Your task to perform on an android device: turn pop-ups off in chrome Image 0: 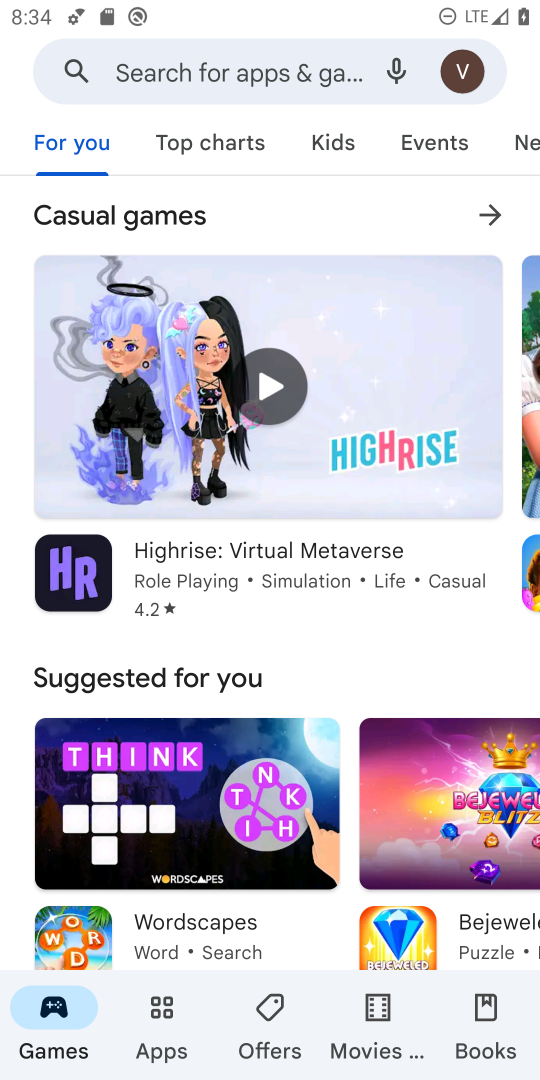
Step 0: press home button
Your task to perform on an android device: turn pop-ups off in chrome Image 1: 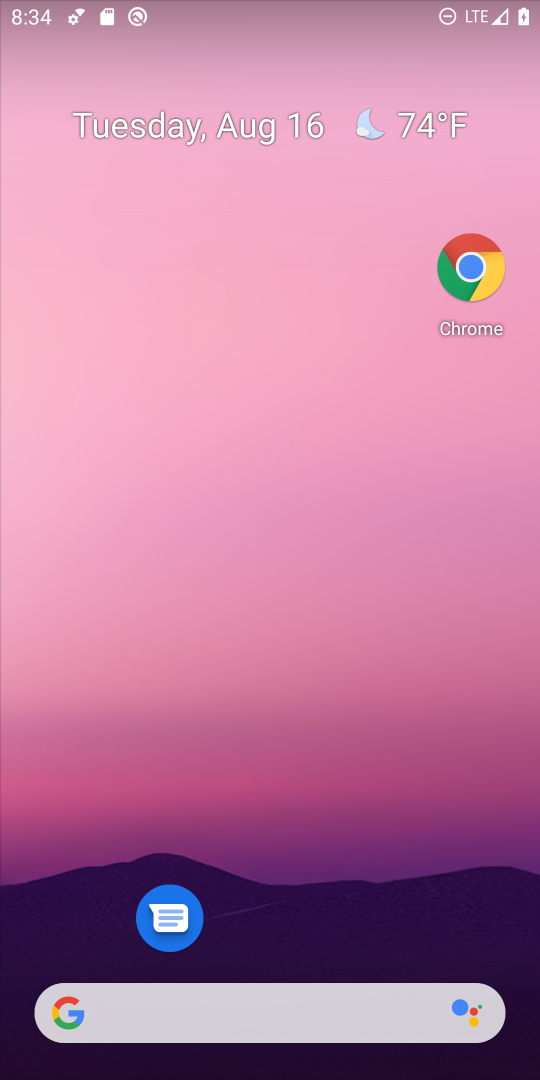
Step 1: drag from (480, 1052) to (389, 444)
Your task to perform on an android device: turn pop-ups off in chrome Image 2: 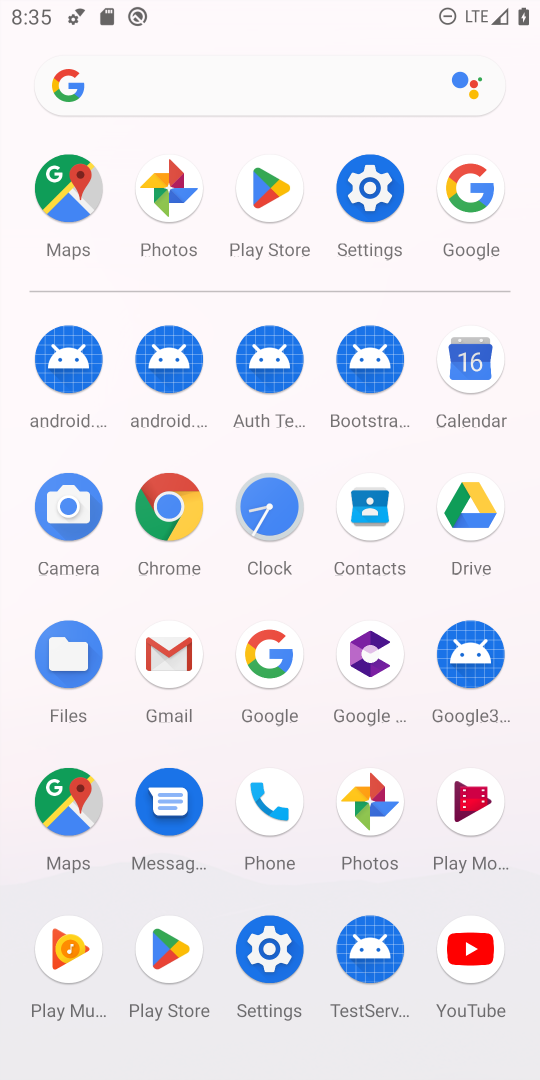
Step 2: click (180, 515)
Your task to perform on an android device: turn pop-ups off in chrome Image 3: 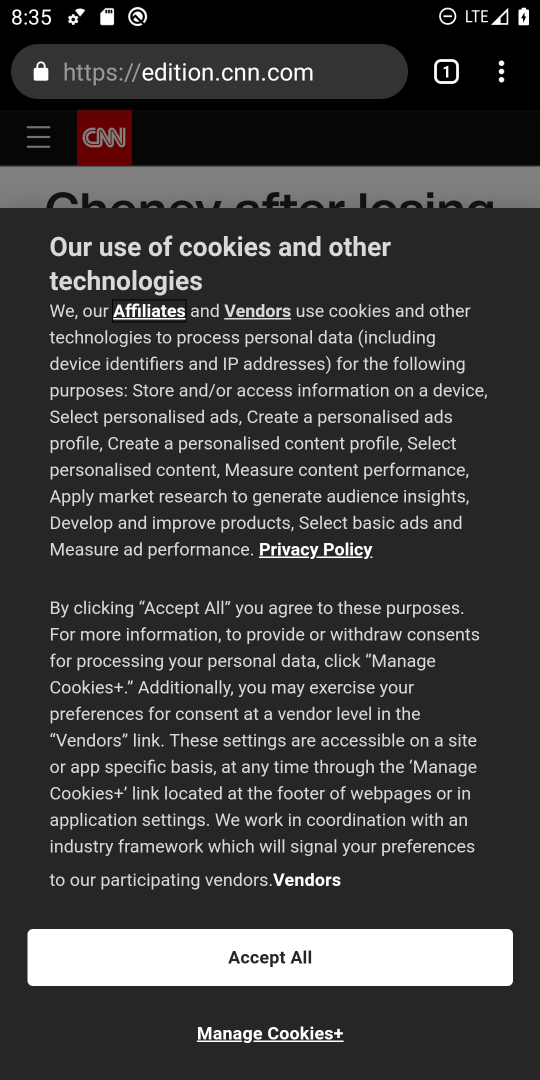
Step 3: click (508, 68)
Your task to perform on an android device: turn pop-ups off in chrome Image 4: 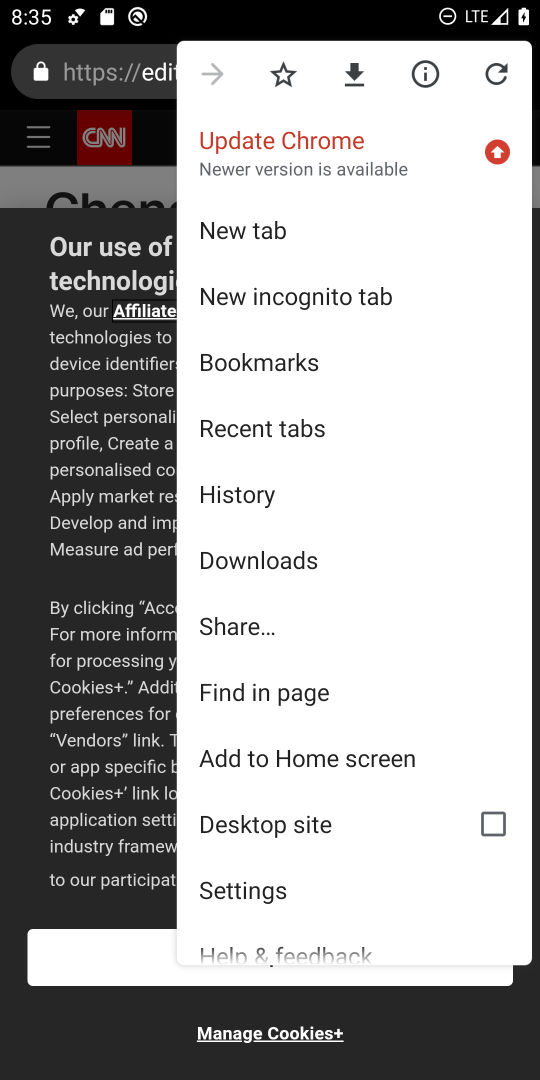
Step 4: click (229, 895)
Your task to perform on an android device: turn pop-ups off in chrome Image 5: 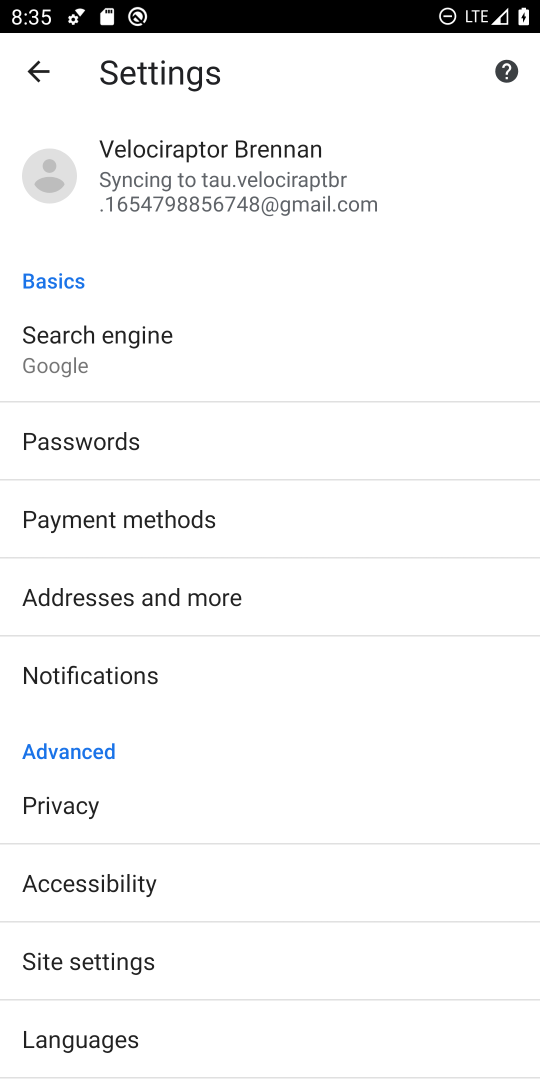
Step 5: click (117, 968)
Your task to perform on an android device: turn pop-ups off in chrome Image 6: 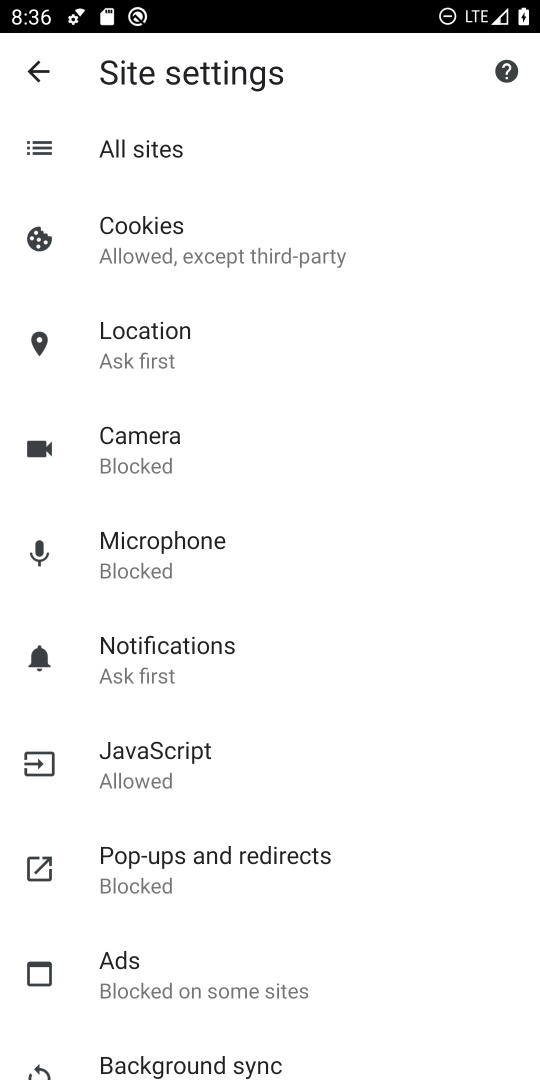
Step 6: click (170, 864)
Your task to perform on an android device: turn pop-ups off in chrome Image 7: 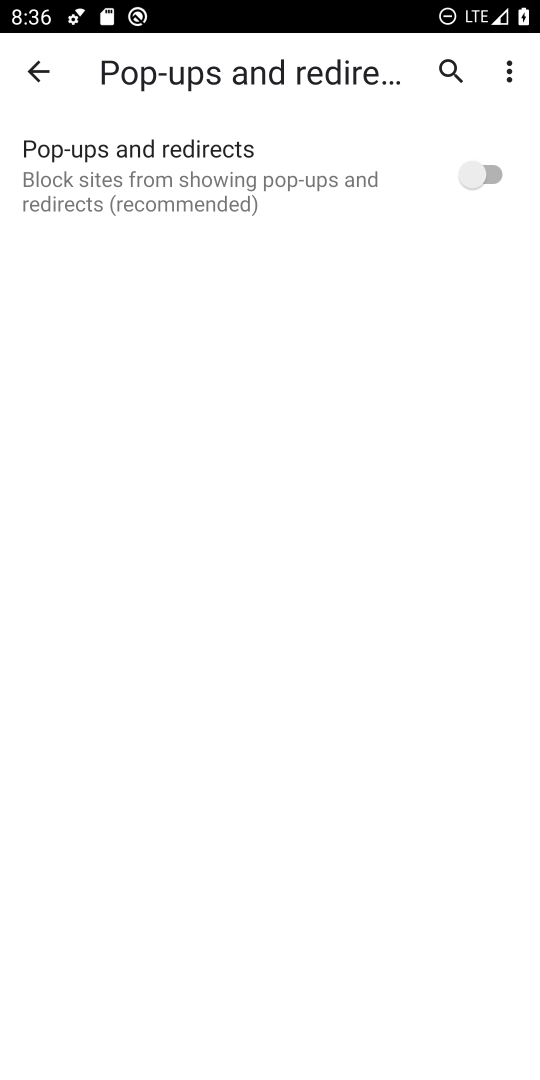
Step 7: task complete